Your task to perform on an android device: open chrome privacy settings Image 0: 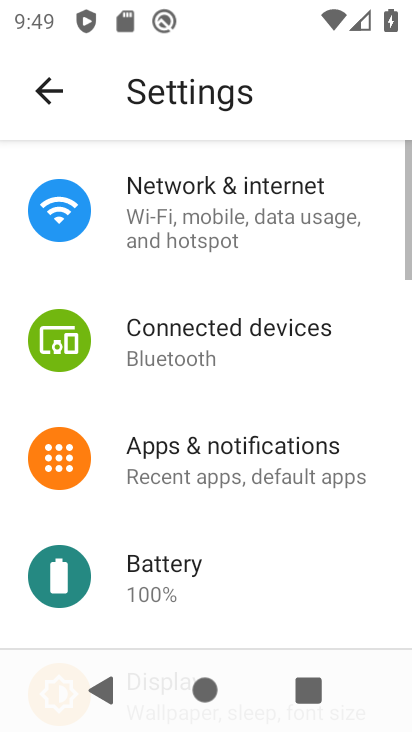
Step 0: press home button
Your task to perform on an android device: open chrome privacy settings Image 1: 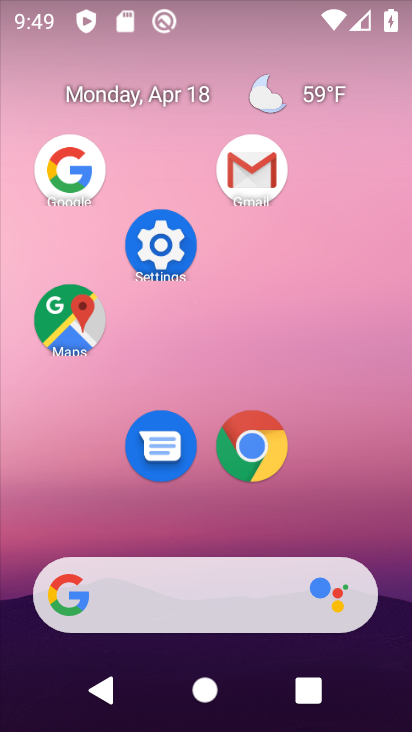
Step 1: click (269, 460)
Your task to perform on an android device: open chrome privacy settings Image 2: 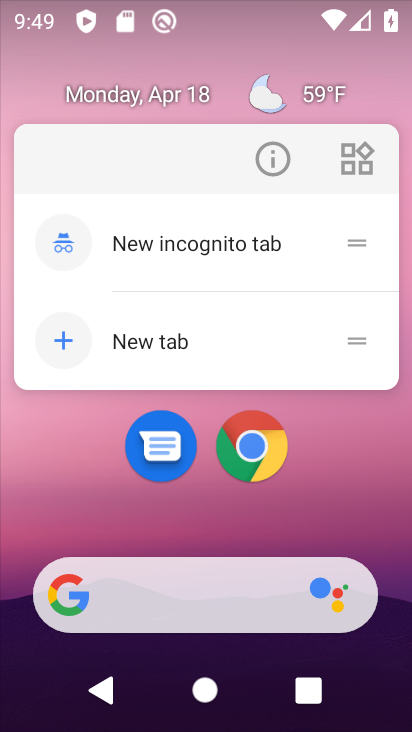
Step 2: click (246, 444)
Your task to perform on an android device: open chrome privacy settings Image 3: 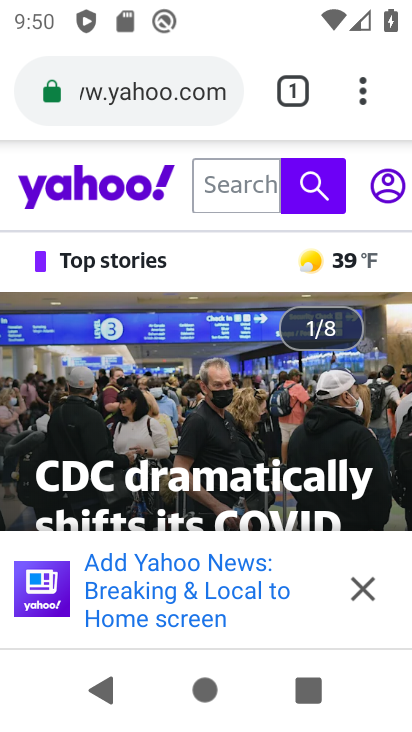
Step 3: click (373, 94)
Your task to perform on an android device: open chrome privacy settings Image 4: 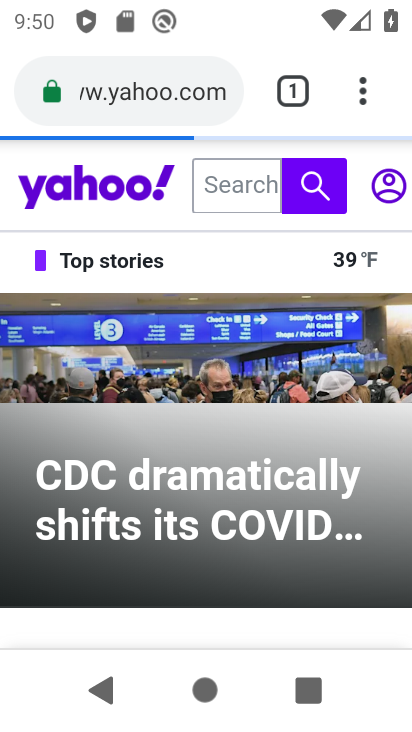
Step 4: drag from (352, 85) to (131, 464)
Your task to perform on an android device: open chrome privacy settings Image 5: 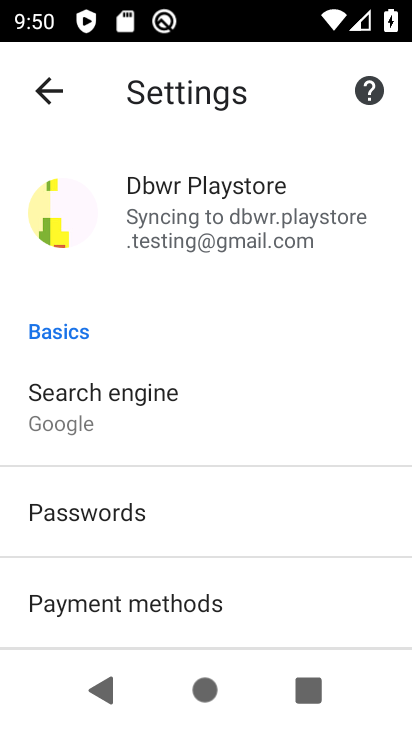
Step 5: drag from (180, 555) to (300, 95)
Your task to perform on an android device: open chrome privacy settings Image 6: 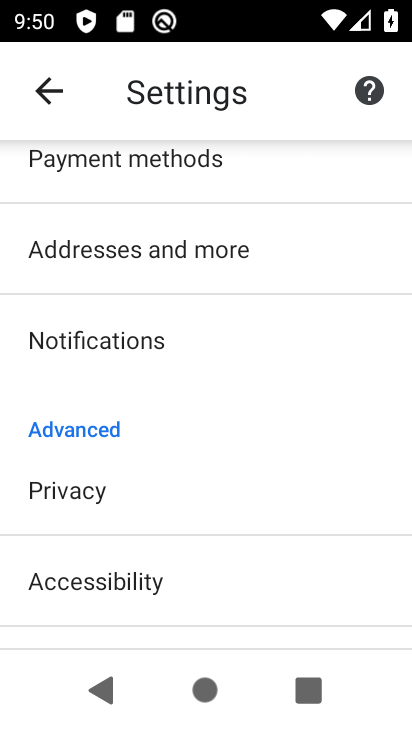
Step 6: click (93, 471)
Your task to perform on an android device: open chrome privacy settings Image 7: 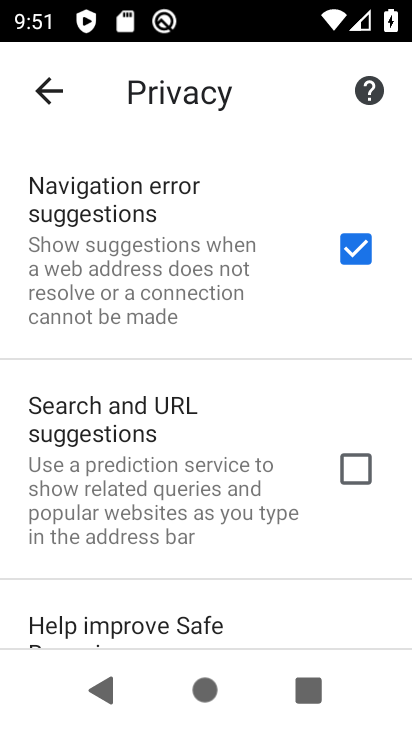
Step 7: task complete